Your task to perform on an android device: What is the recent news? Image 0: 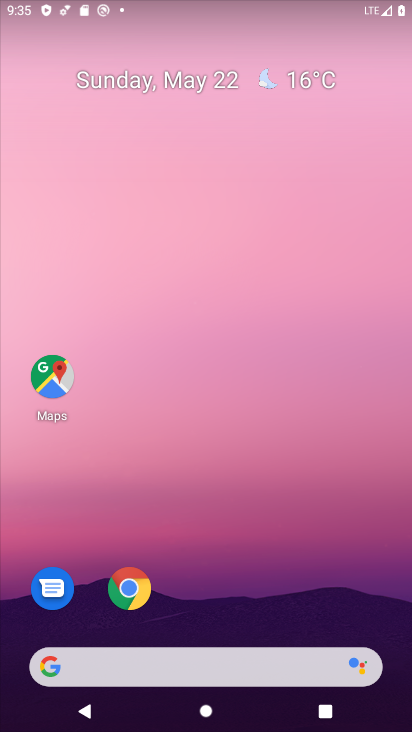
Step 0: drag from (211, 567) to (209, 260)
Your task to perform on an android device: What is the recent news? Image 1: 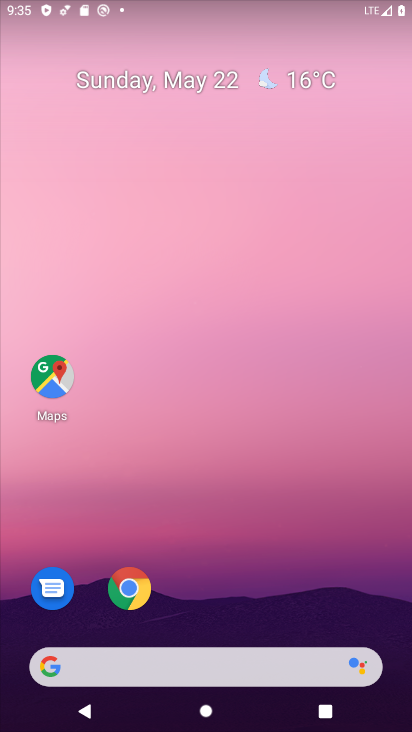
Step 1: drag from (219, 625) to (202, 203)
Your task to perform on an android device: What is the recent news? Image 2: 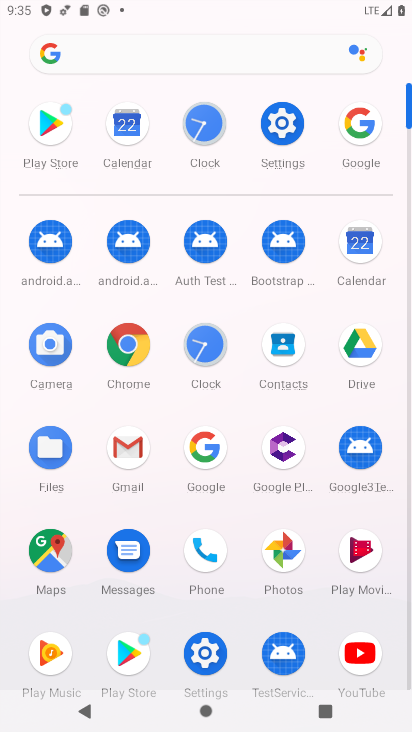
Step 2: click (196, 443)
Your task to perform on an android device: What is the recent news? Image 3: 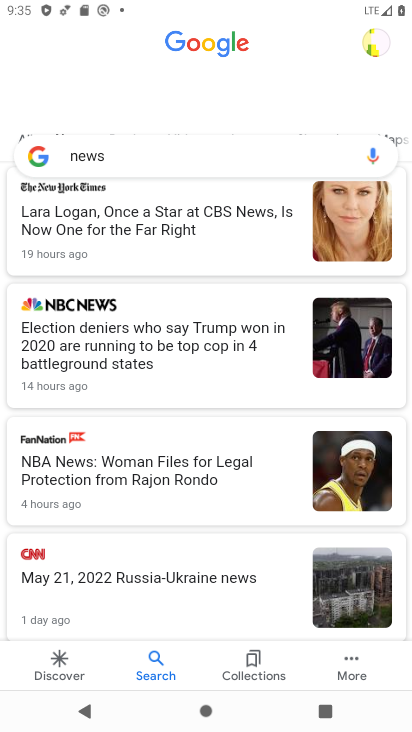
Step 3: task complete